Your task to perform on an android device: Open Google Maps and go to "Timeline" Image 0: 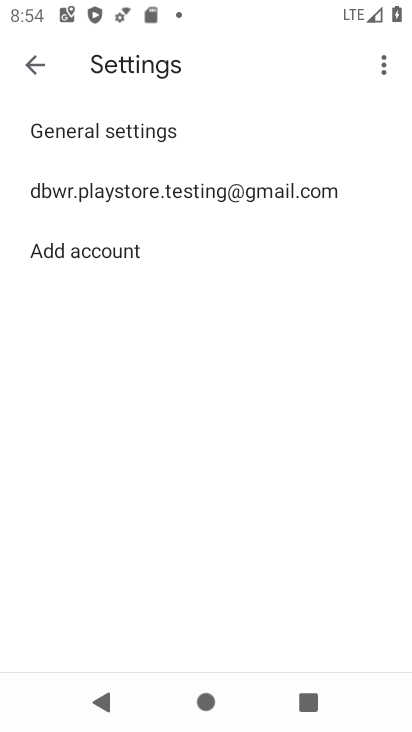
Step 0: press home button
Your task to perform on an android device: Open Google Maps and go to "Timeline" Image 1: 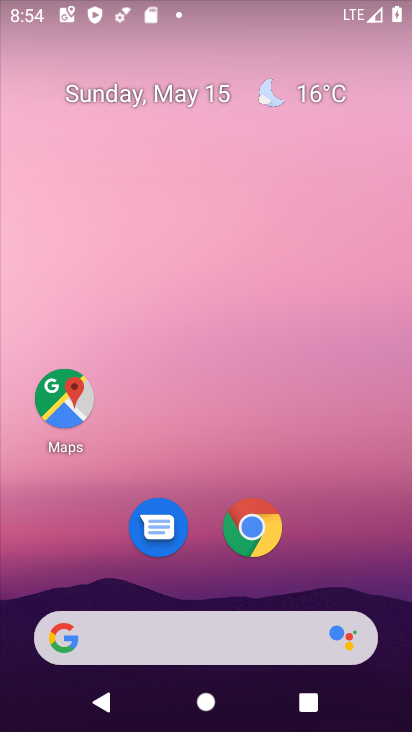
Step 1: click (78, 394)
Your task to perform on an android device: Open Google Maps and go to "Timeline" Image 2: 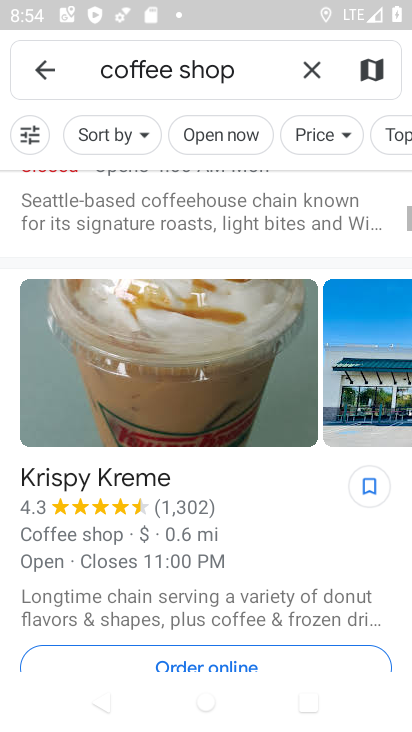
Step 2: click (321, 75)
Your task to perform on an android device: Open Google Maps and go to "Timeline" Image 3: 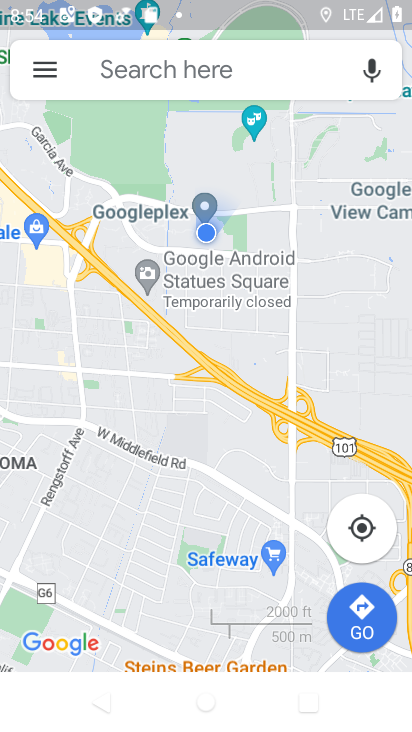
Step 3: click (52, 66)
Your task to perform on an android device: Open Google Maps and go to "Timeline" Image 4: 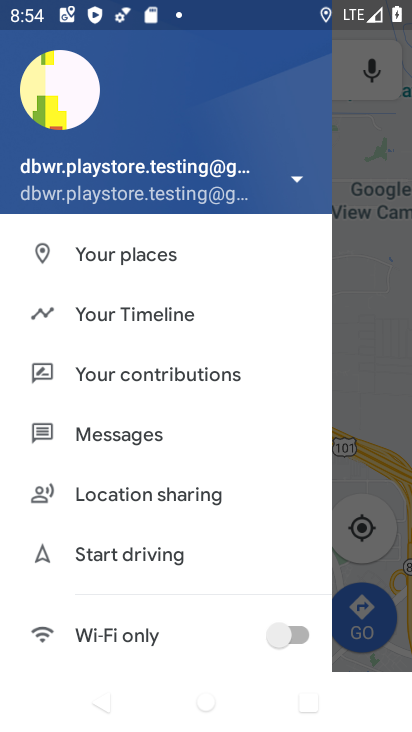
Step 4: click (86, 320)
Your task to perform on an android device: Open Google Maps and go to "Timeline" Image 5: 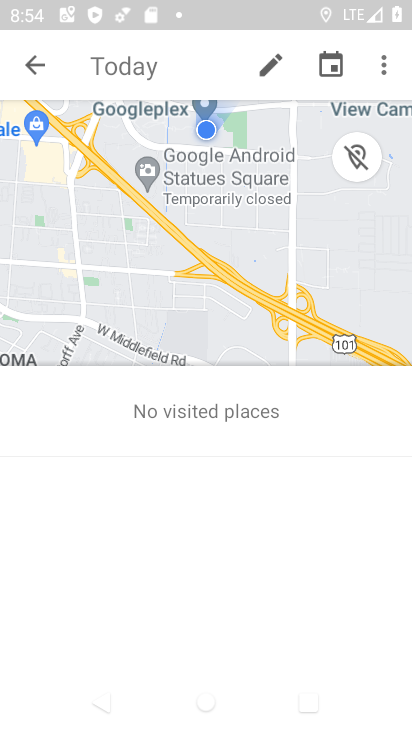
Step 5: task complete